Your task to perform on an android device: check battery use Image 0: 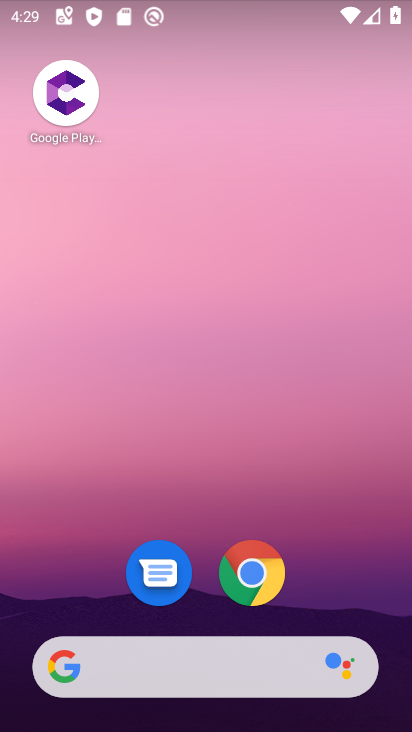
Step 0: drag from (77, 616) to (160, 199)
Your task to perform on an android device: check battery use Image 1: 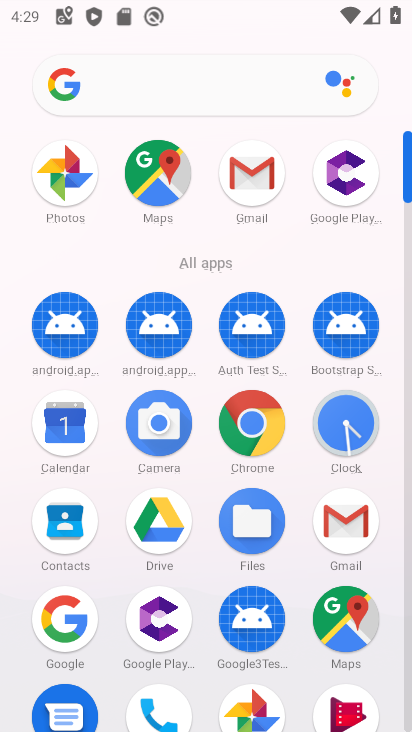
Step 1: drag from (144, 663) to (218, 379)
Your task to perform on an android device: check battery use Image 2: 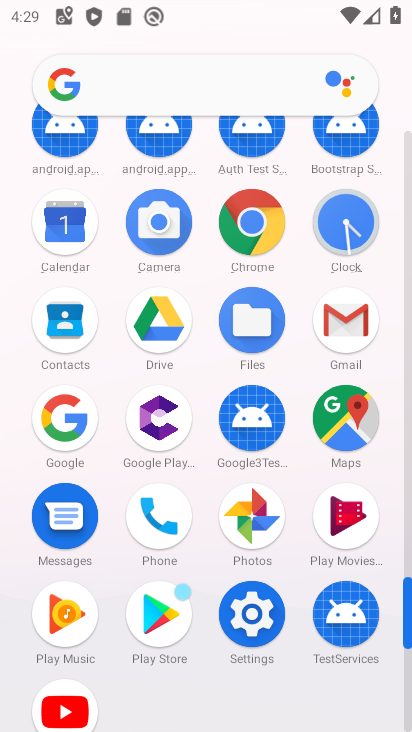
Step 2: click (257, 642)
Your task to perform on an android device: check battery use Image 3: 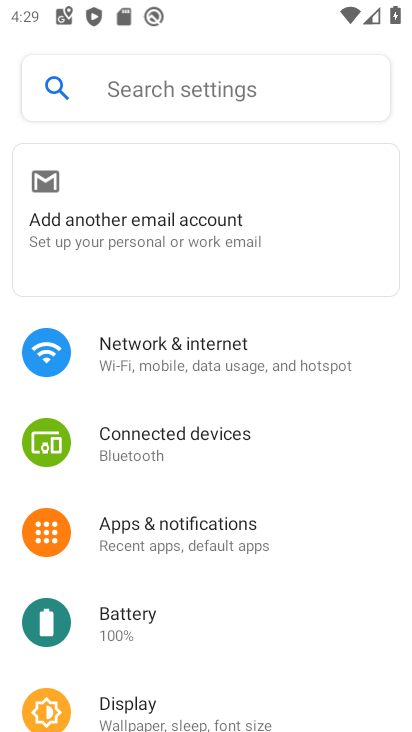
Step 3: drag from (207, 635) to (229, 486)
Your task to perform on an android device: check battery use Image 4: 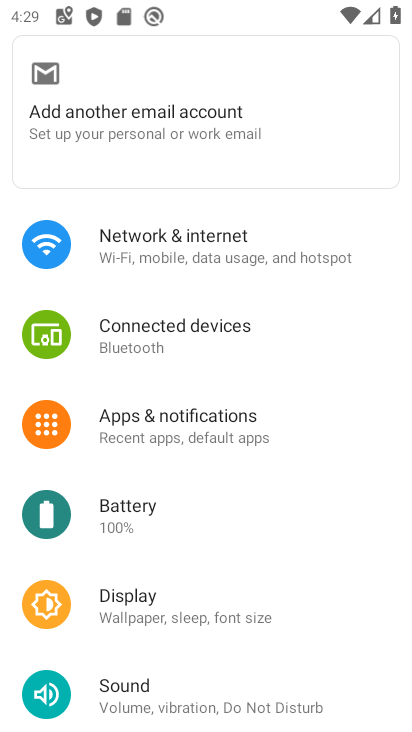
Step 4: click (215, 521)
Your task to perform on an android device: check battery use Image 5: 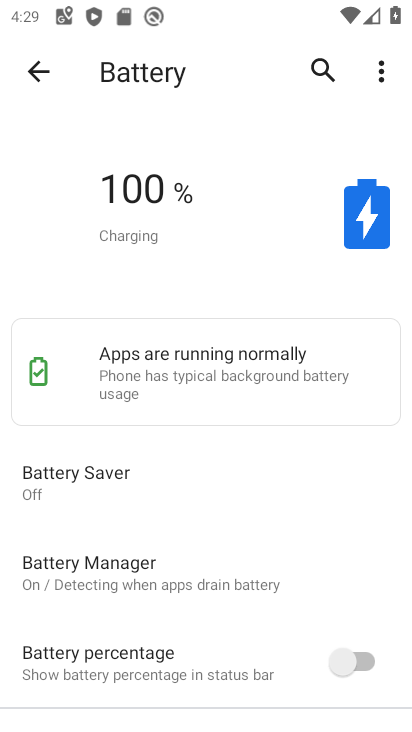
Step 5: click (362, 77)
Your task to perform on an android device: check battery use Image 6: 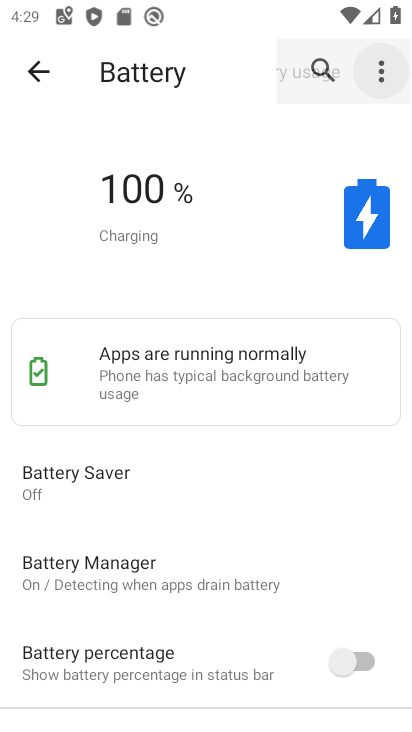
Step 6: click (378, 75)
Your task to perform on an android device: check battery use Image 7: 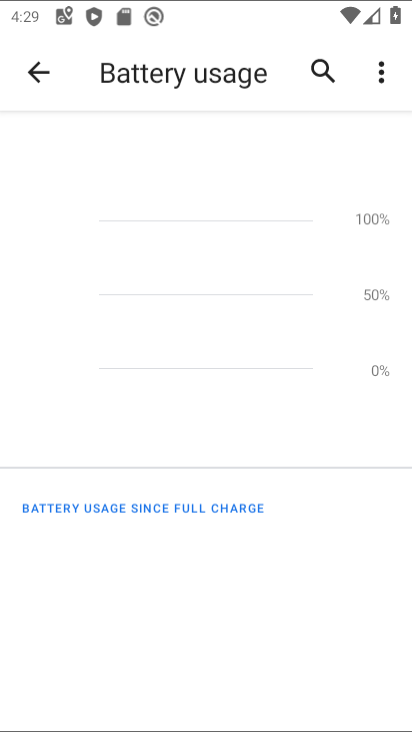
Step 7: click (375, 81)
Your task to perform on an android device: check battery use Image 8: 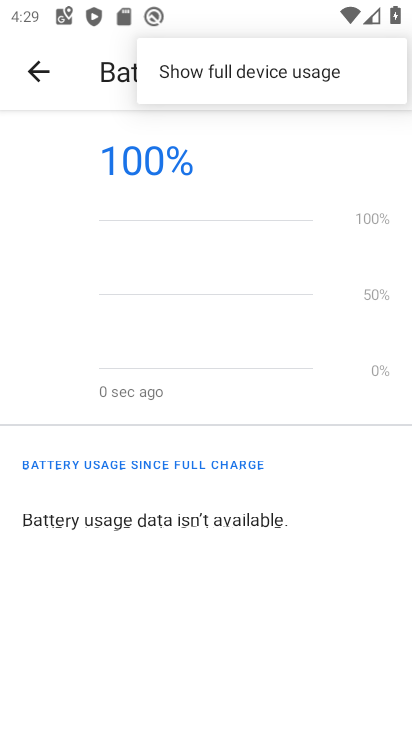
Step 8: task complete